Your task to perform on an android device: Go to Android settings Image 0: 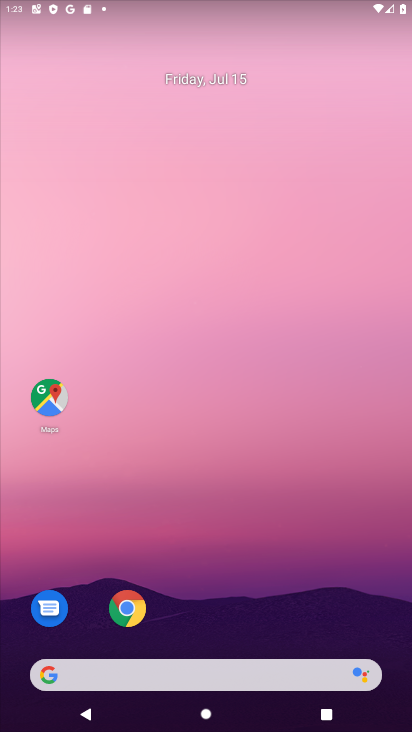
Step 0: drag from (250, 688) to (218, 230)
Your task to perform on an android device: Go to Android settings Image 1: 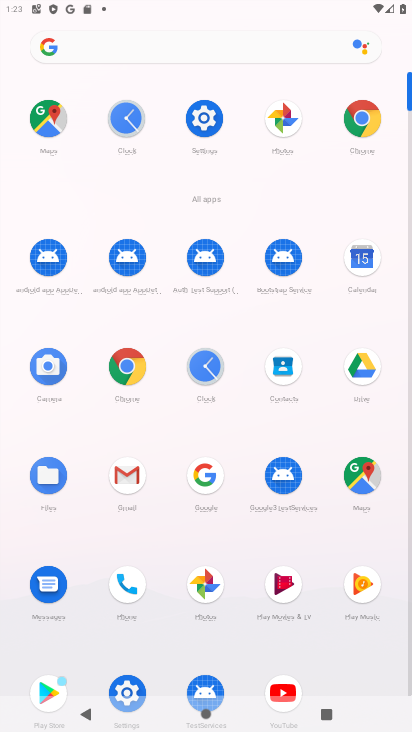
Step 1: click (187, 117)
Your task to perform on an android device: Go to Android settings Image 2: 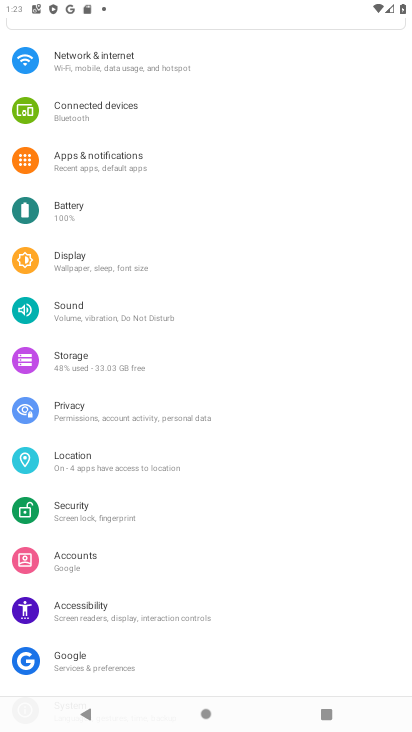
Step 2: drag from (197, 630) to (196, 24)
Your task to perform on an android device: Go to Android settings Image 3: 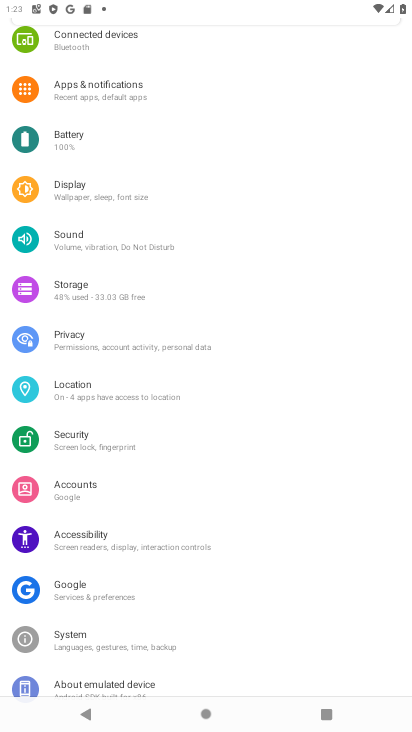
Step 3: click (294, 156)
Your task to perform on an android device: Go to Android settings Image 4: 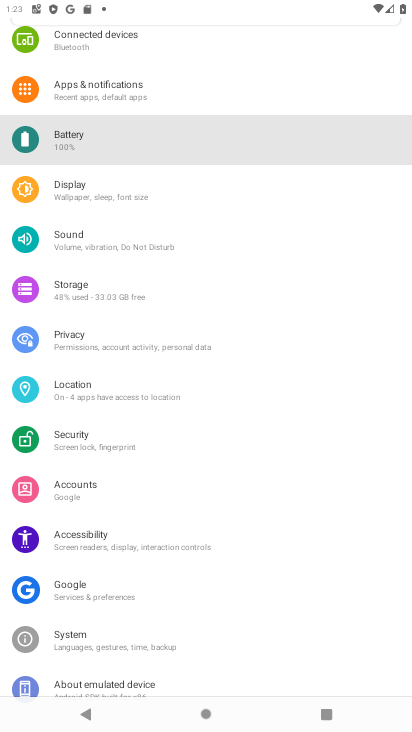
Step 4: click (131, 680)
Your task to perform on an android device: Go to Android settings Image 5: 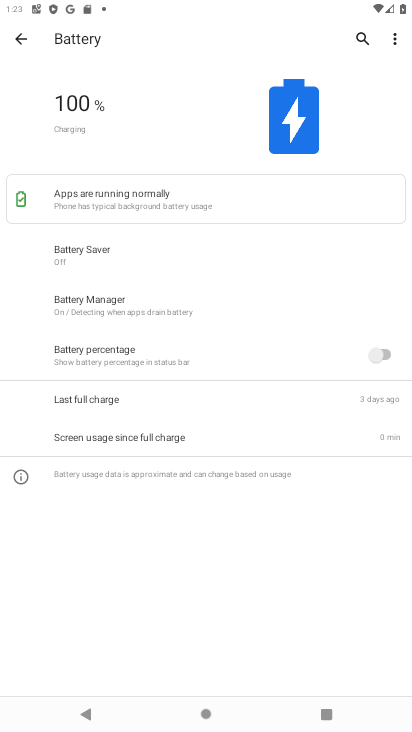
Step 5: press home button
Your task to perform on an android device: Go to Android settings Image 6: 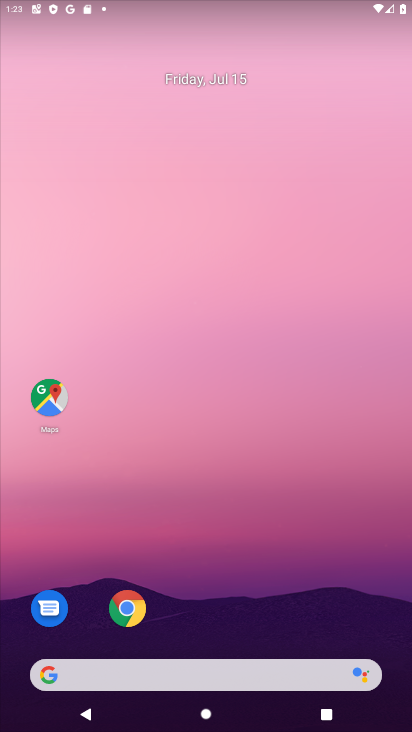
Step 6: drag from (159, 686) to (175, 212)
Your task to perform on an android device: Go to Android settings Image 7: 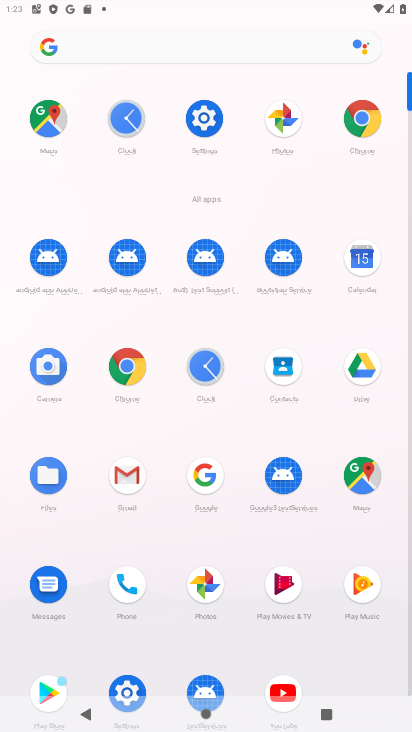
Step 7: click (206, 110)
Your task to perform on an android device: Go to Android settings Image 8: 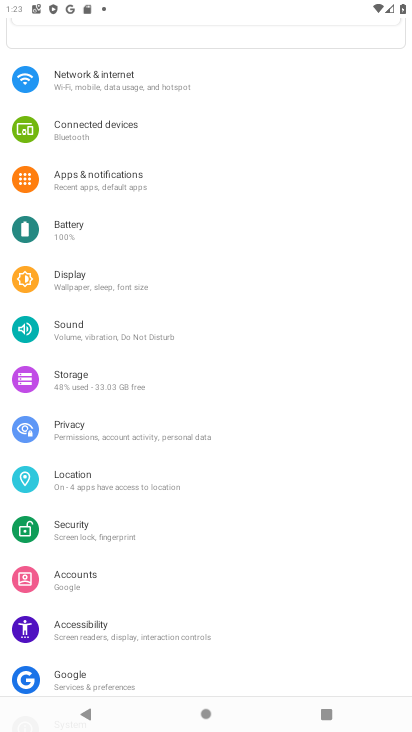
Step 8: drag from (193, 604) to (127, 109)
Your task to perform on an android device: Go to Android settings Image 9: 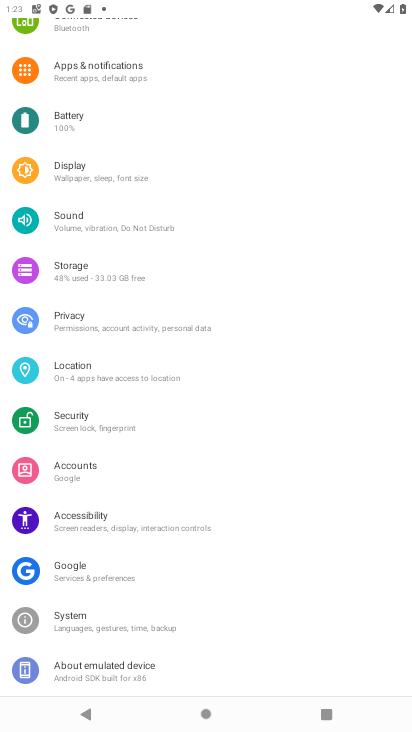
Step 9: click (127, 673)
Your task to perform on an android device: Go to Android settings Image 10: 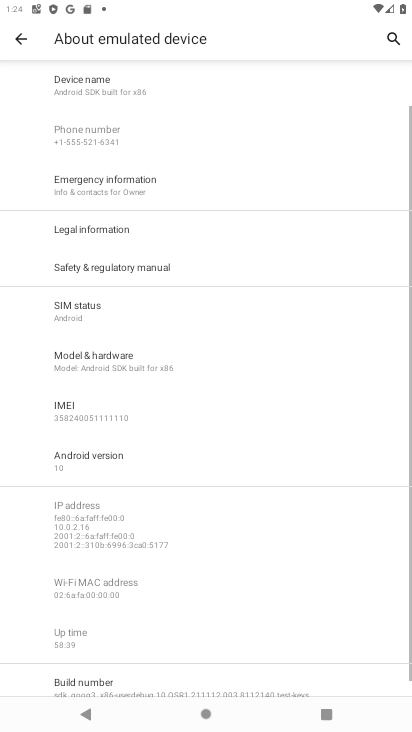
Step 10: task complete